Your task to perform on an android device: create a new album in the google photos Image 0: 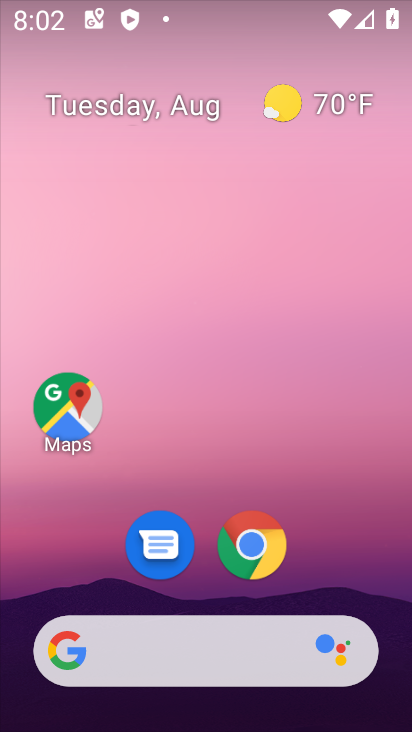
Step 0: drag from (195, 481) to (300, 4)
Your task to perform on an android device: create a new album in the google photos Image 1: 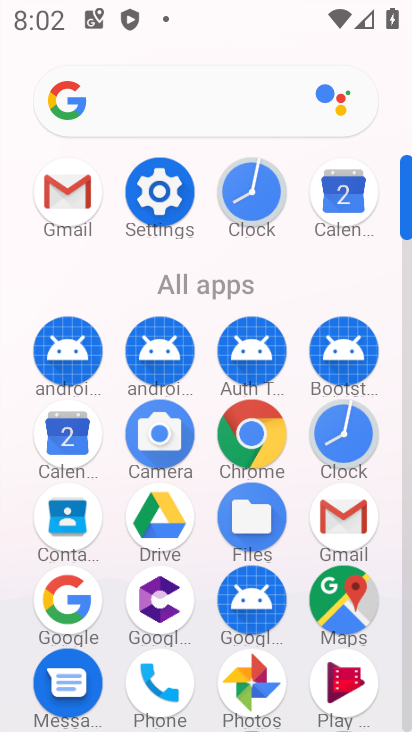
Step 1: drag from (232, 557) to (287, 233)
Your task to perform on an android device: create a new album in the google photos Image 2: 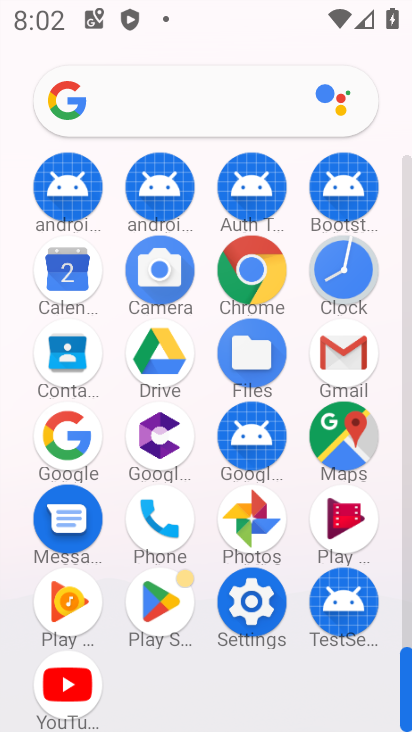
Step 2: click (252, 531)
Your task to perform on an android device: create a new album in the google photos Image 3: 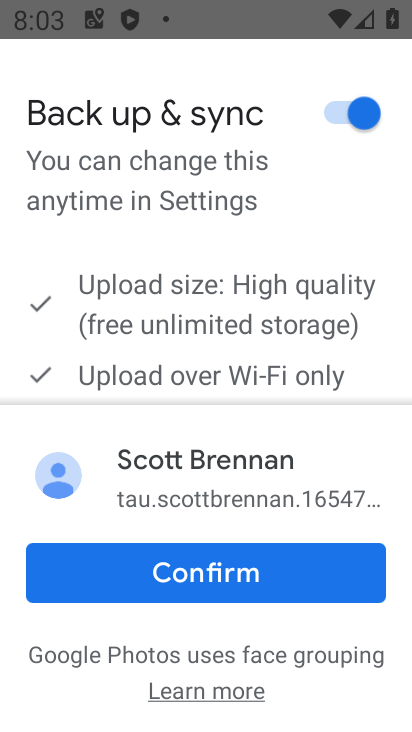
Step 3: click (258, 580)
Your task to perform on an android device: create a new album in the google photos Image 4: 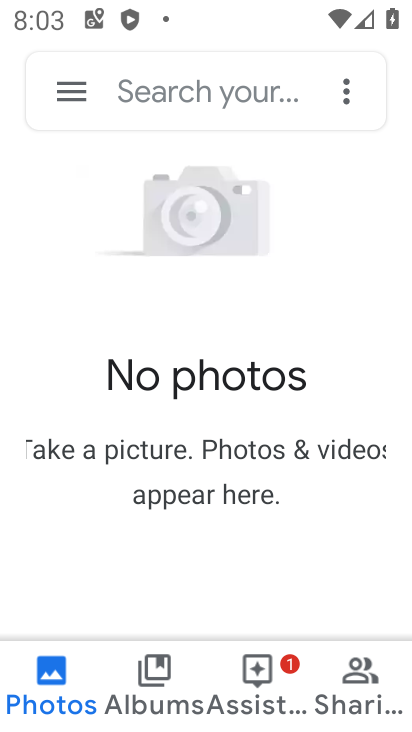
Step 4: click (153, 688)
Your task to perform on an android device: create a new album in the google photos Image 5: 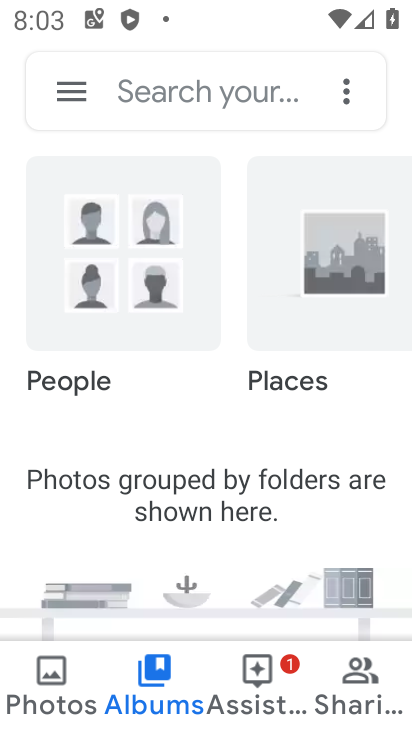
Step 5: task complete